Your task to perform on an android device: Toggle the flashlight Image 0: 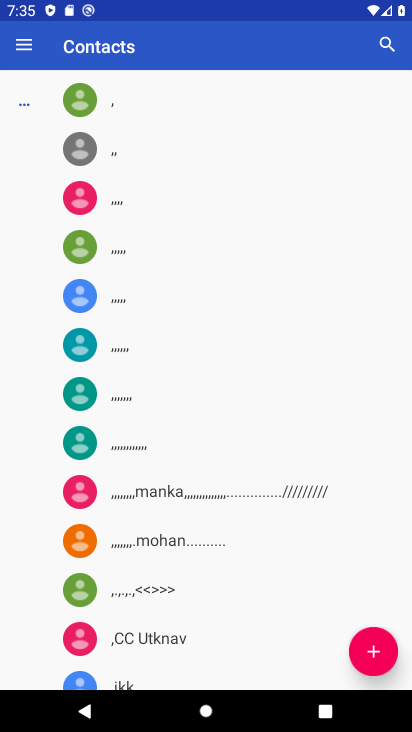
Step 0: press home button
Your task to perform on an android device: Toggle the flashlight Image 1: 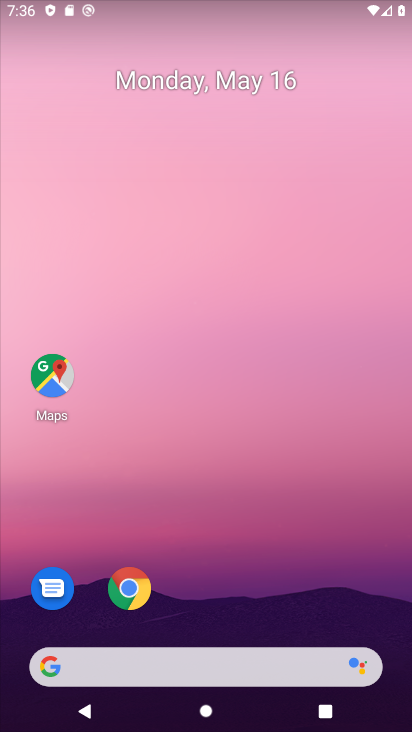
Step 1: drag from (249, 3) to (219, 431)
Your task to perform on an android device: Toggle the flashlight Image 2: 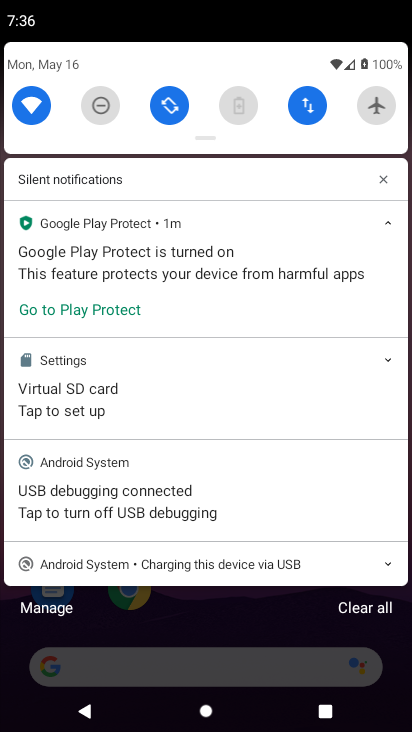
Step 2: drag from (200, 78) to (215, 390)
Your task to perform on an android device: Toggle the flashlight Image 3: 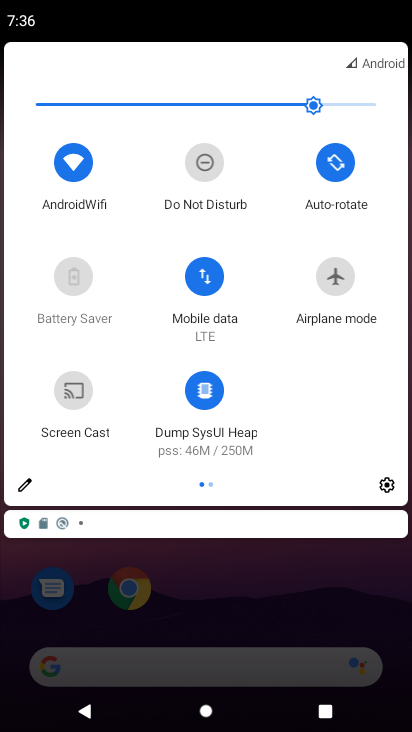
Step 3: click (34, 485)
Your task to perform on an android device: Toggle the flashlight Image 4: 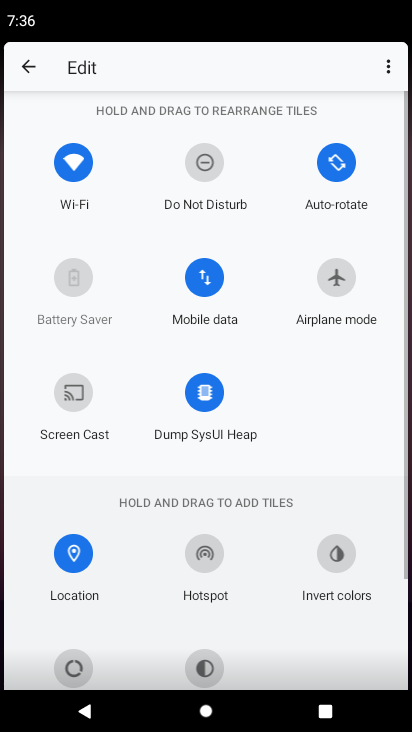
Step 4: task complete